Your task to perform on an android device: Go to location settings Image 0: 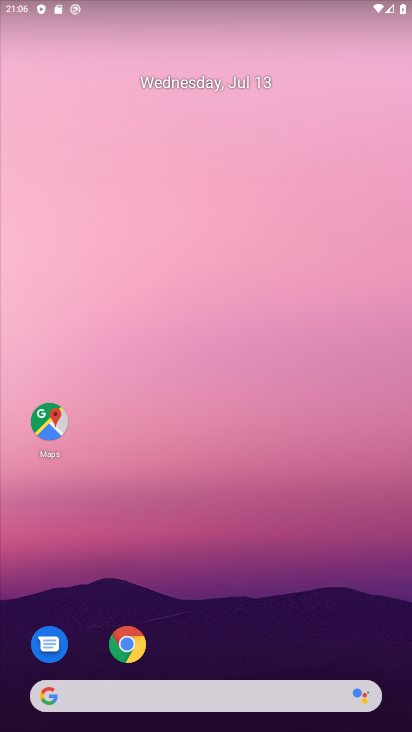
Step 0: drag from (217, 630) to (204, 96)
Your task to perform on an android device: Go to location settings Image 1: 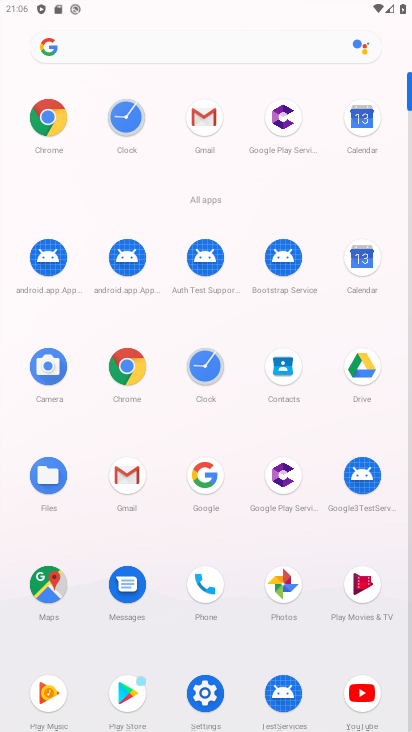
Step 1: click (209, 695)
Your task to perform on an android device: Go to location settings Image 2: 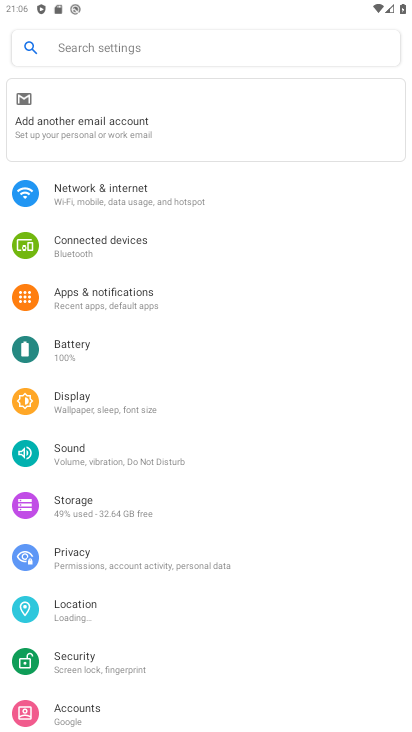
Step 2: click (159, 608)
Your task to perform on an android device: Go to location settings Image 3: 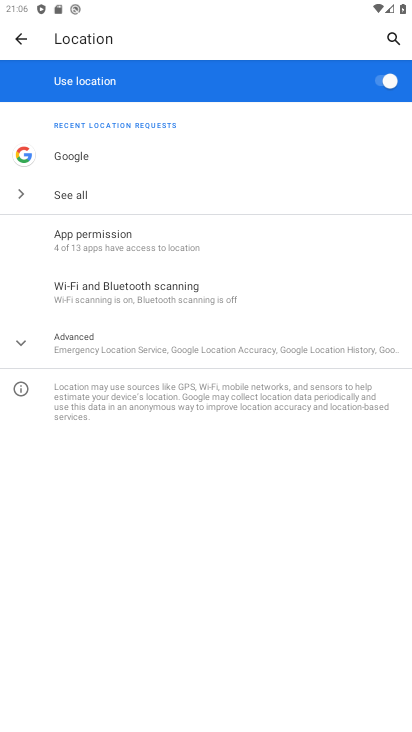
Step 3: task complete